Your task to perform on an android device: open chrome and create a bookmark for the current page Image 0: 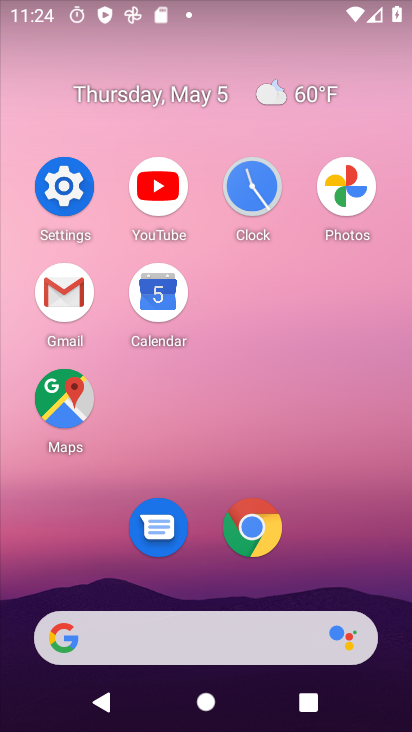
Step 0: click (253, 538)
Your task to perform on an android device: open chrome and create a bookmark for the current page Image 1: 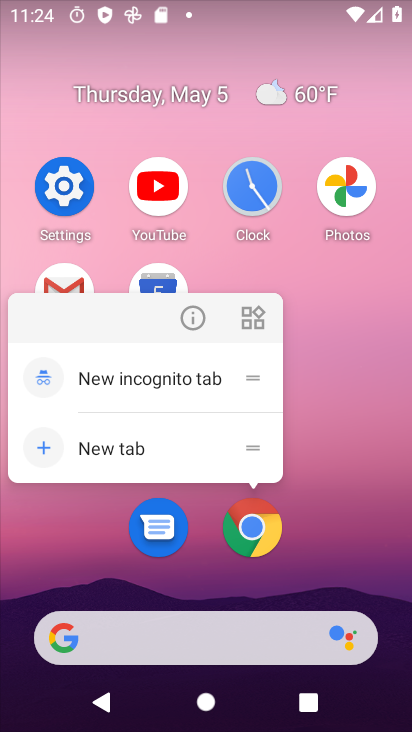
Step 1: click (235, 519)
Your task to perform on an android device: open chrome and create a bookmark for the current page Image 2: 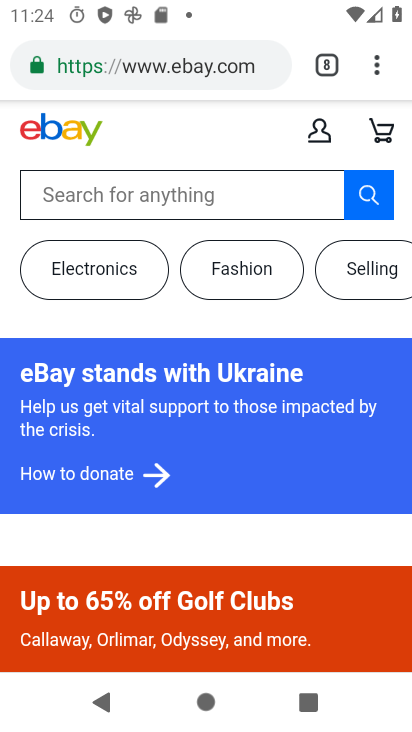
Step 2: click (377, 66)
Your task to perform on an android device: open chrome and create a bookmark for the current page Image 3: 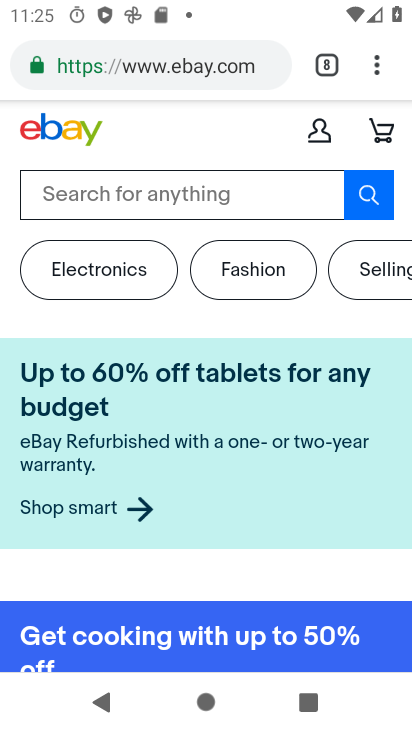
Step 3: click (401, 79)
Your task to perform on an android device: open chrome and create a bookmark for the current page Image 4: 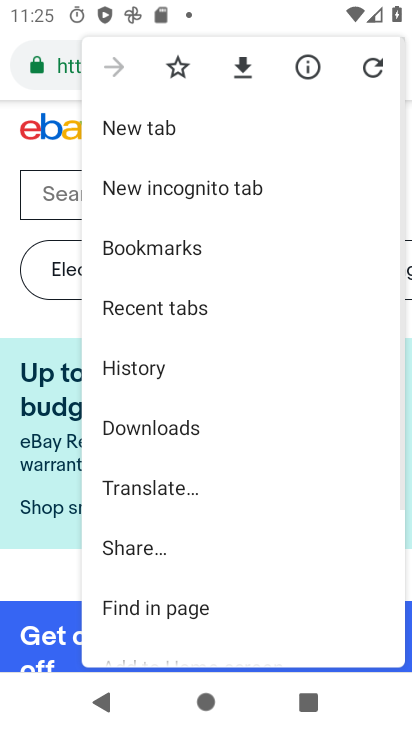
Step 4: click (180, 78)
Your task to perform on an android device: open chrome and create a bookmark for the current page Image 5: 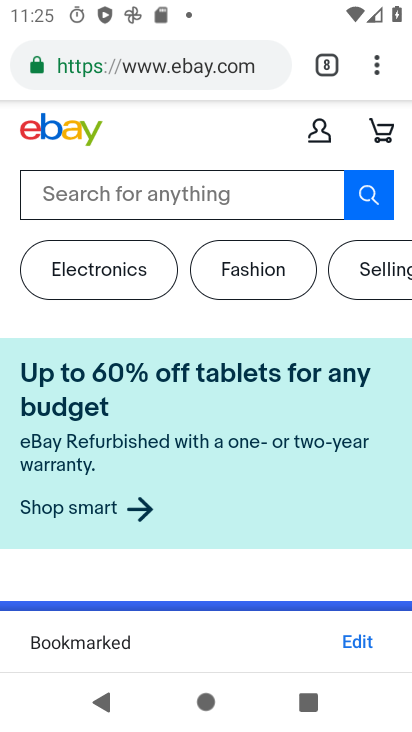
Step 5: task complete